Your task to perform on an android device: Show me productivity apps on the Play Store Image 0: 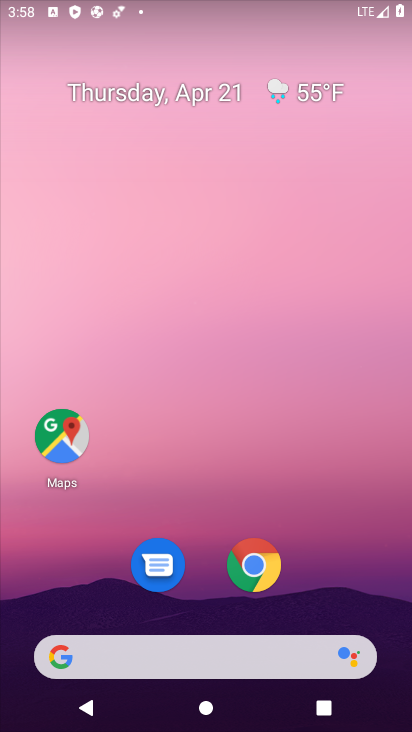
Step 0: drag from (349, 557) to (350, 62)
Your task to perform on an android device: Show me productivity apps on the Play Store Image 1: 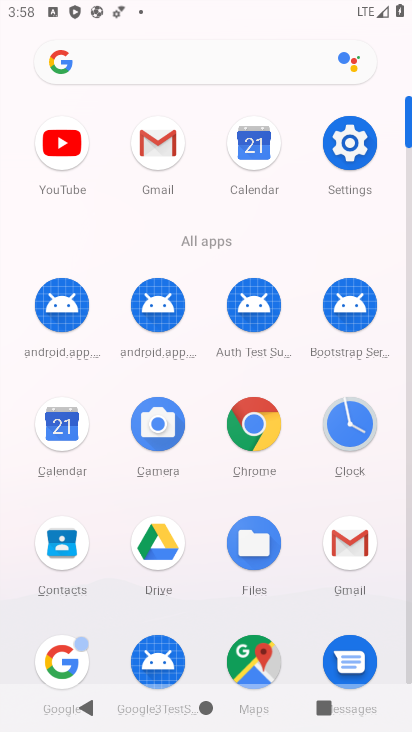
Step 1: drag from (199, 487) to (249, 115)
Your task to perform on an android device: Show me productivity apps on the Play Store Image 2: 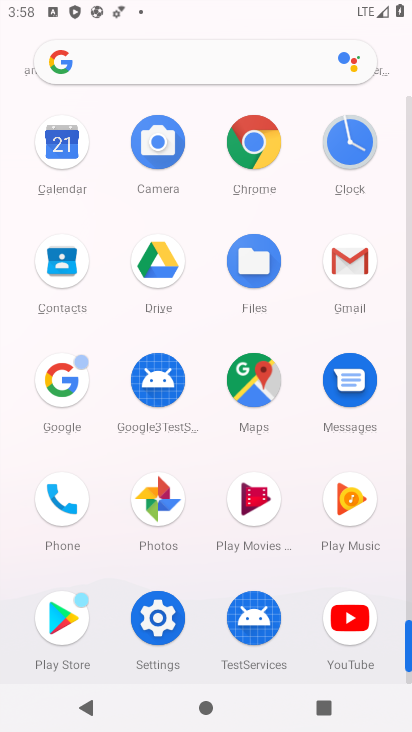
Step 2: click (57, 608)
Your task to perform on an android device: Show me productivity apps on the Play Store Image 3: 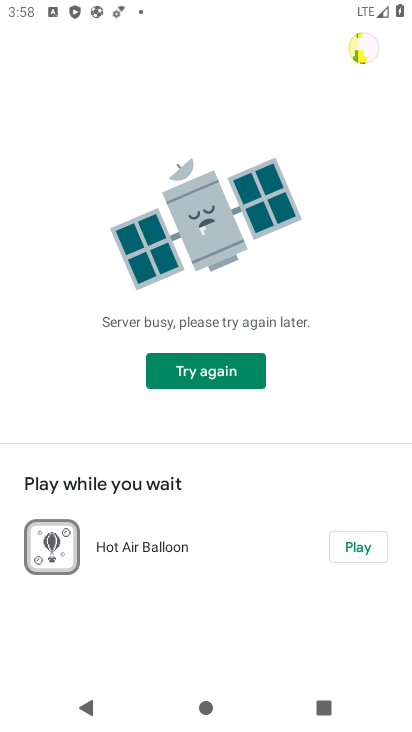
Step 3: click (252, 369)
Your task to perform on an android device: Show me productivity apps on the Play Store Image 4: 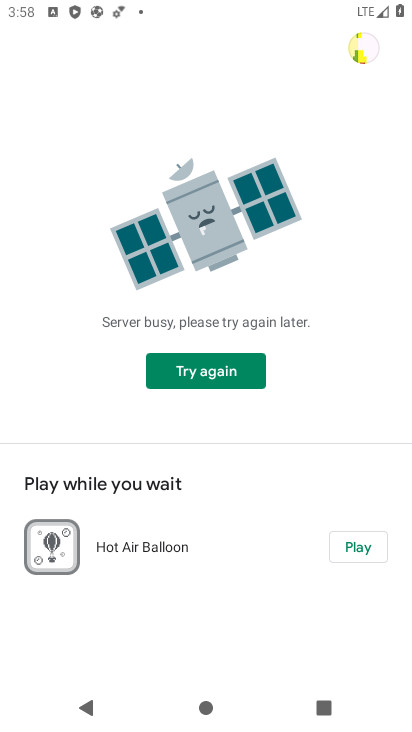
Step 4: click (252, 371)
Your task to perform on an android device: Show me productivity apps on the Play Store Image 5: 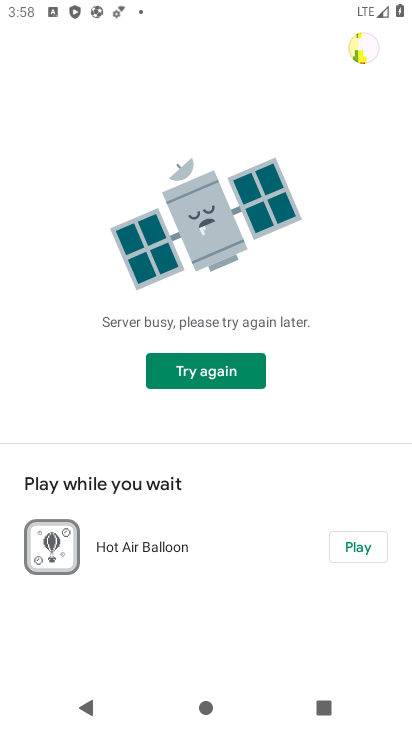
Step 5: click (252, 366)
Your task to perform on an android device: Show me productivity apps on the Play Store Image 6: 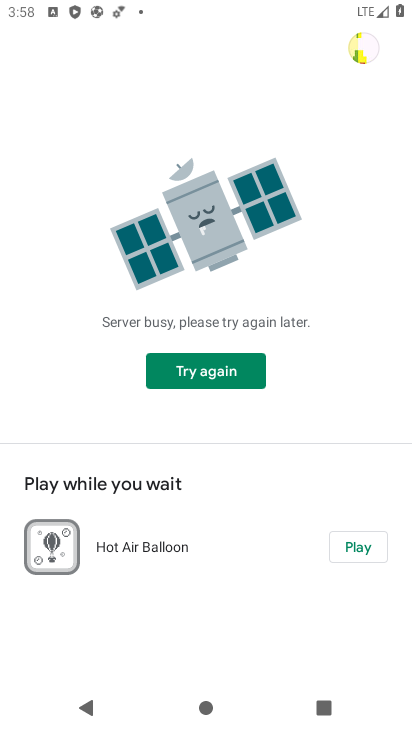
Step 6: task complete